Your task to perform on an android device: delete location history Image 0: 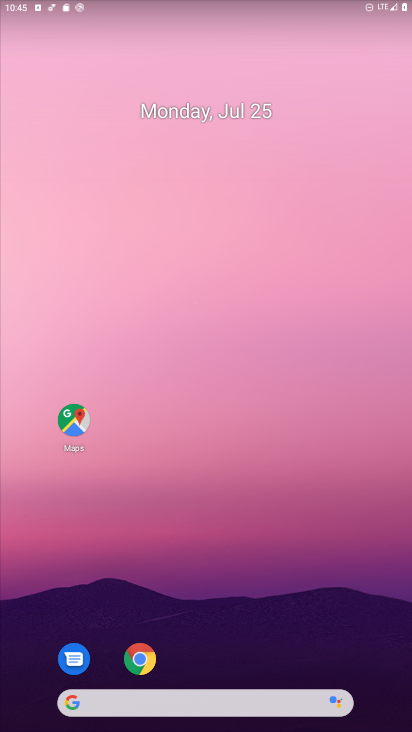
Step 0: drag from (211, 622) to (232, 189)
Your task to perform on an android device: delete location history Image 1: 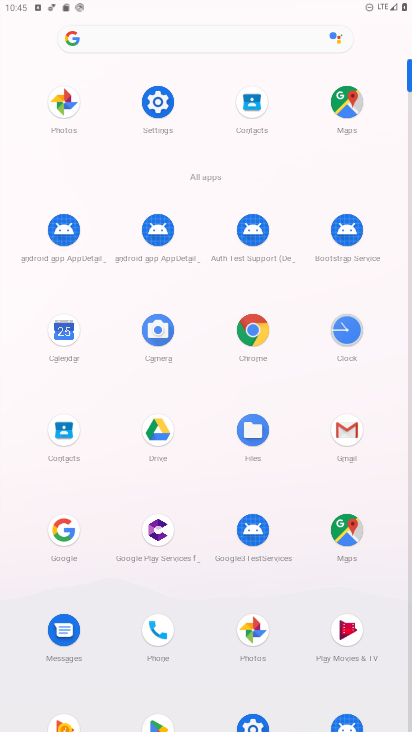
Step 1: click (337, 109)
Your task to perform on an android device: delete location history Image 2: 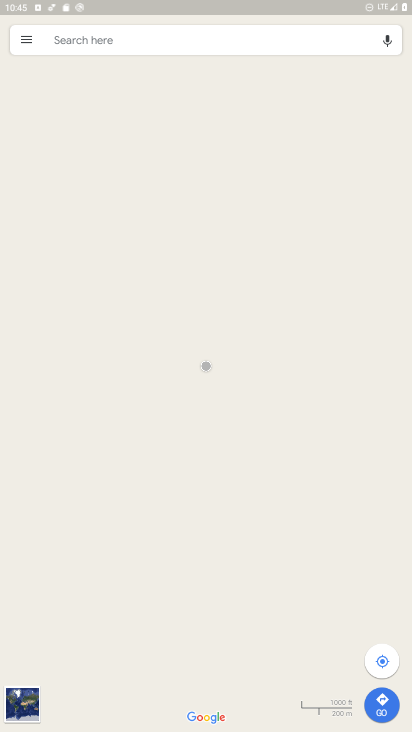
Step 2: click (32, 41)
Your task to perform on an android device: delete location history Image 3: 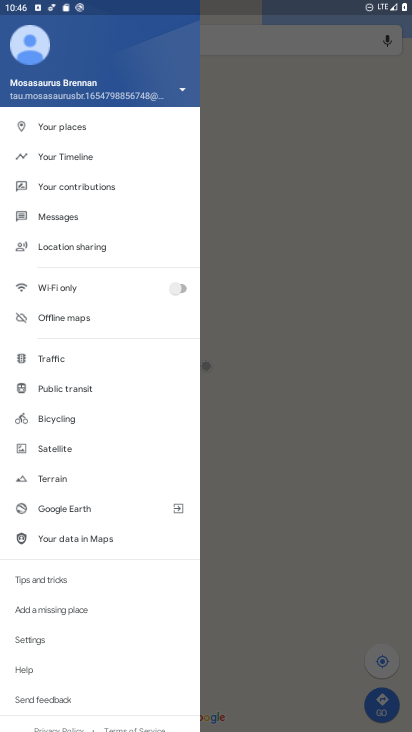
Step 3: click (58, 163)
Your task to perform on an android device: delete location history Image 4: 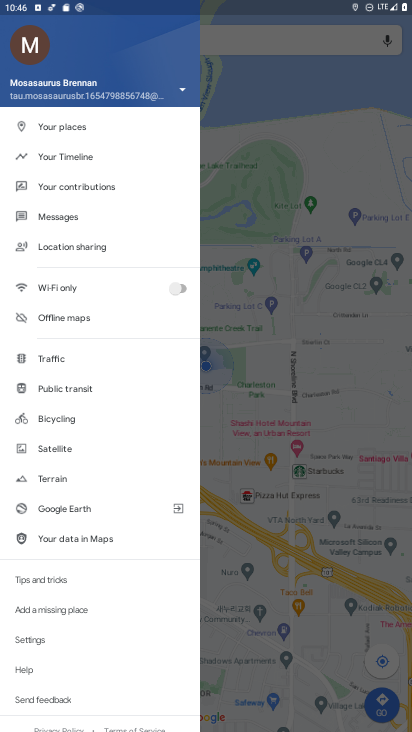
Step 4: click (46, 157)
Your task to perform on an android device: delete location history Image 5: 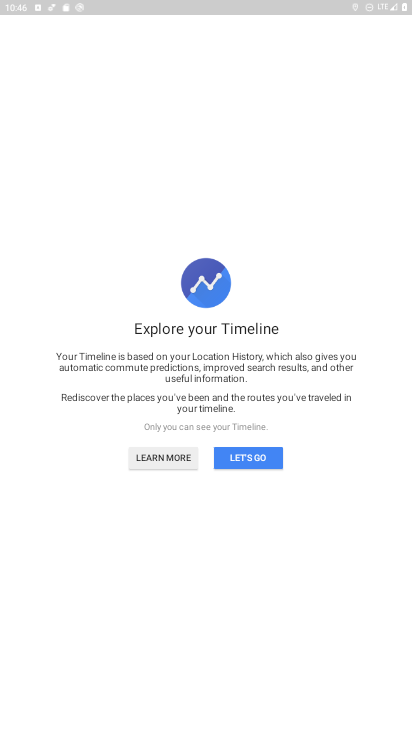
Step 5: click (245, 465)
Your task to perform on an android device: delete location history Image 6: 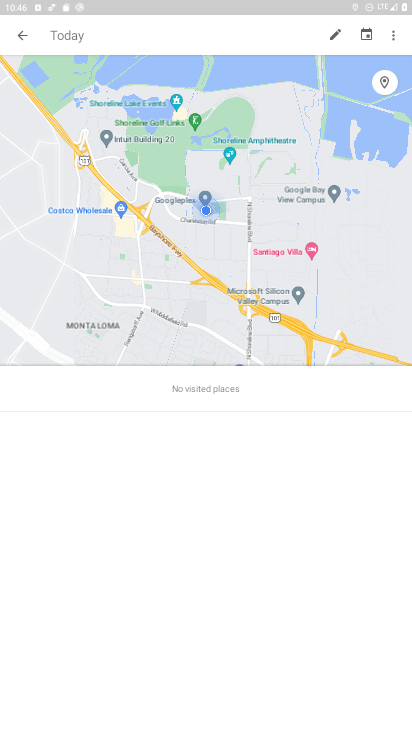
Step 6: click (398, 24)
Your task to perform on an android device: delete location history Image 7: 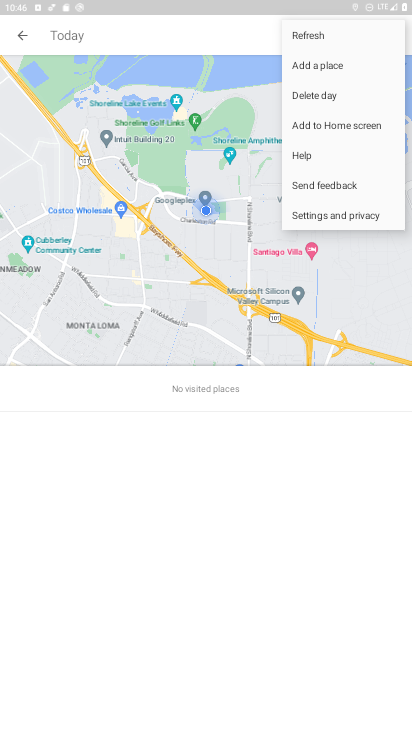
Step 7: click (336, 212)
Your task to perform on an android device: delete location history Image 8: 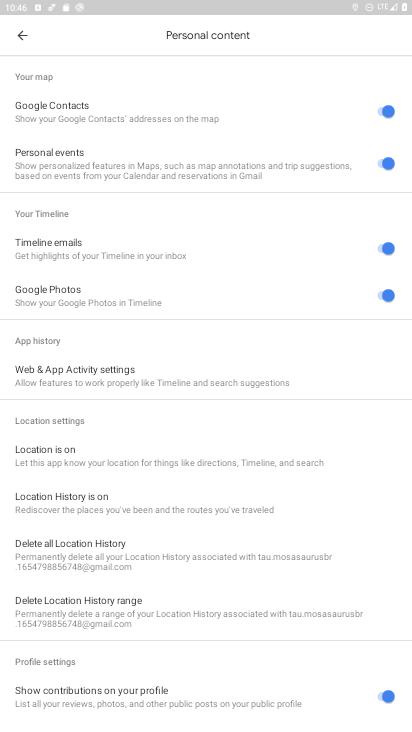
Step 8: drag from (215, 659) to (256, 427)
Your task to perform on an android device: delete location history Image 9: 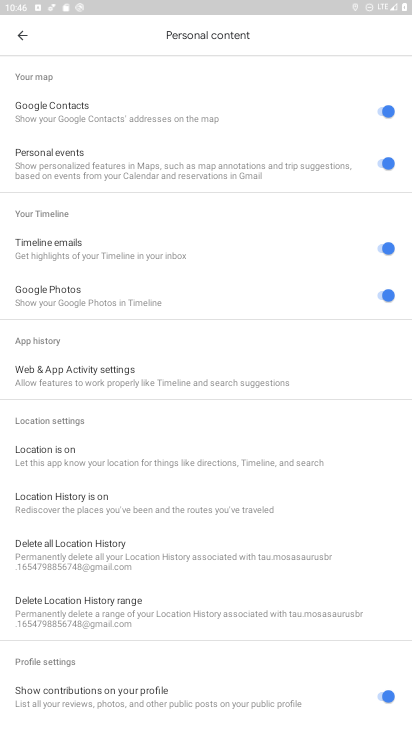
Step 9: click (93, 549)
Your task to perform on an android device: delete location history Image 10: 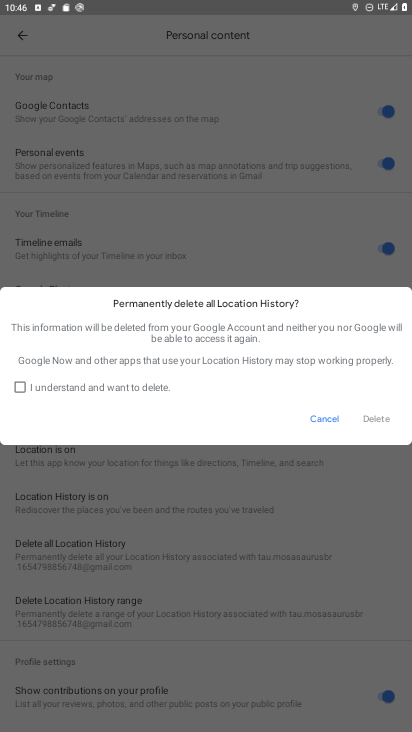
Step 10: click (39, 389)
Your task to perform on an android device: delete location history Image 11: 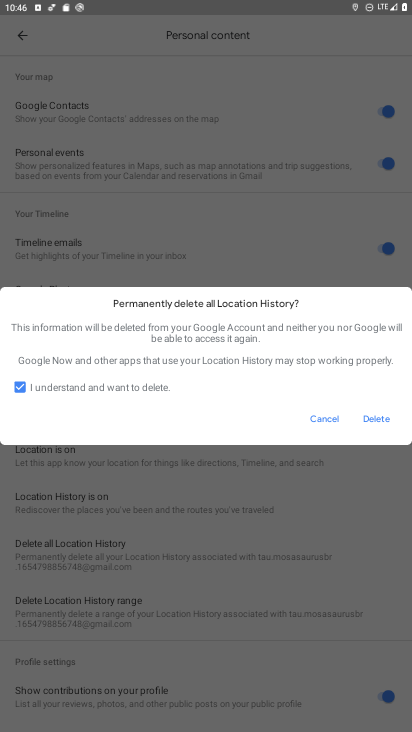
Step 11: click (358, 425)
Your task to perform on an android device: delete location history Image 12: 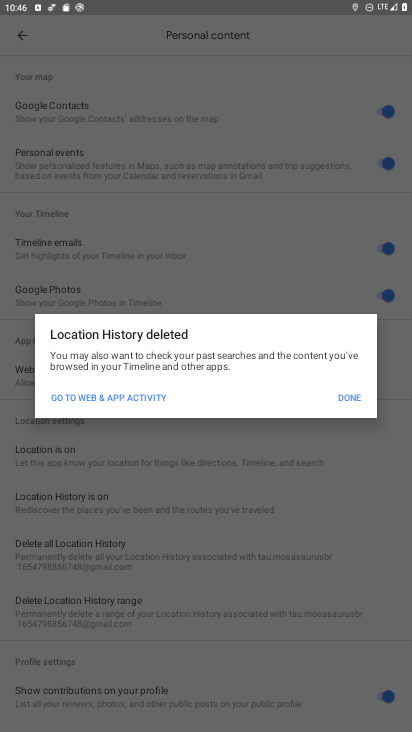
Step 12: click (360, 392)
Your task to perform on an android device: delete location history Image 13: 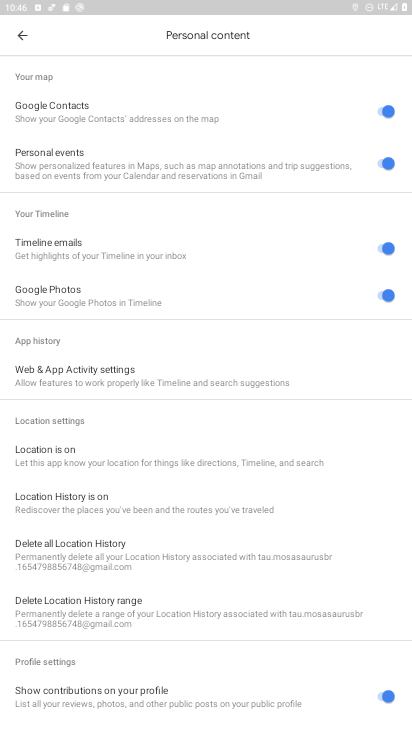
Step 13: task complete